Your task to perform on an android device: delete a single message in the gmail app Image 0: 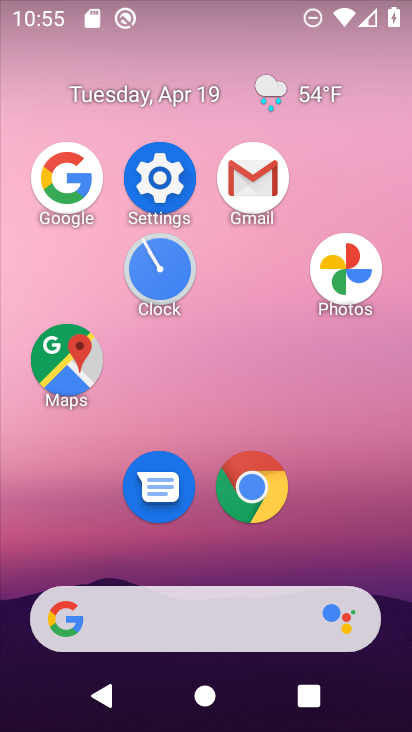
Step 0: click (259, 178)
Your task to perform on an android device: delete a single message in the gmail app Image 1: 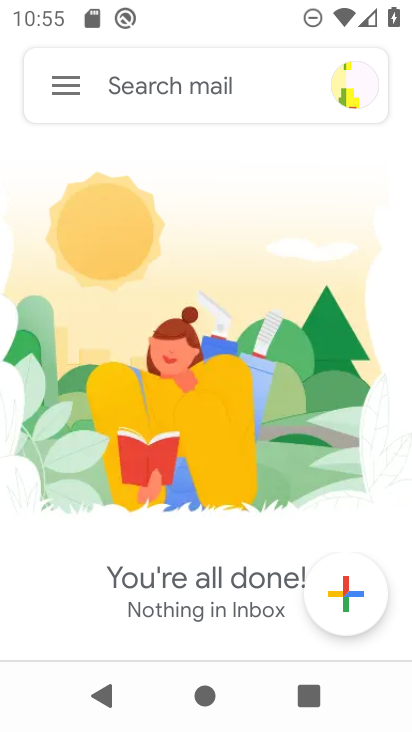
Step 1: click (57, 88)
Your task to perform on an android device: delete a single message in the gmail app Image 2: 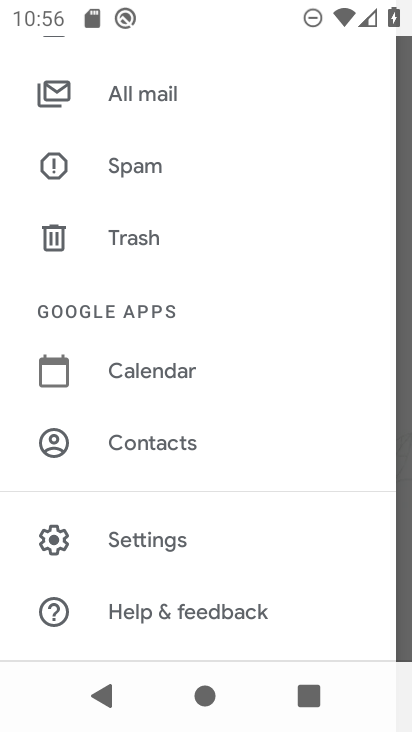
Step 2: click (174, 97)
Your task to perform on an android device: delete a single message in the gmail app Image 3: 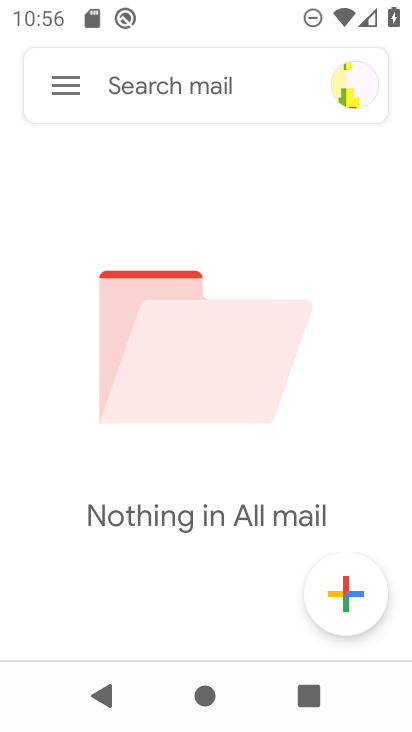
Step 3: task complete